Your task to perform on an android device: Is it going to rain tomorrow? Image 0: 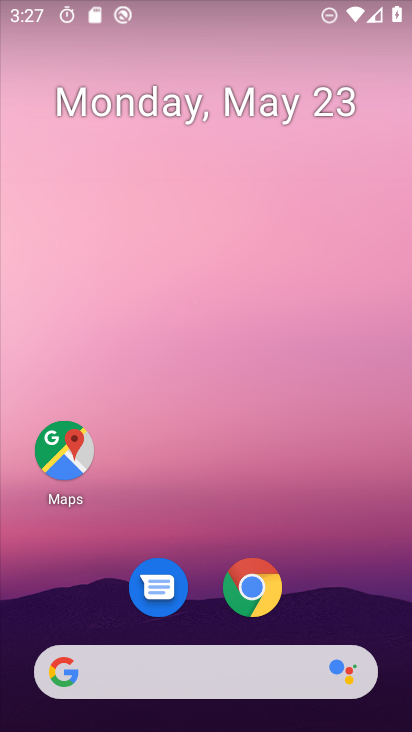
Step 0: click (172, 679)
Your task to perform on an android device: Is it going to rain tomorrow? Image 1: 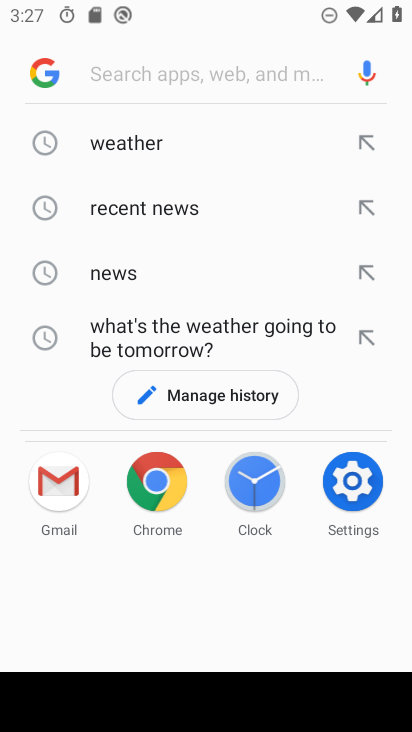
Step 1: click (141, 144)
Your task to perform on an android device: Is it going to rain tomorrow? Image 2: 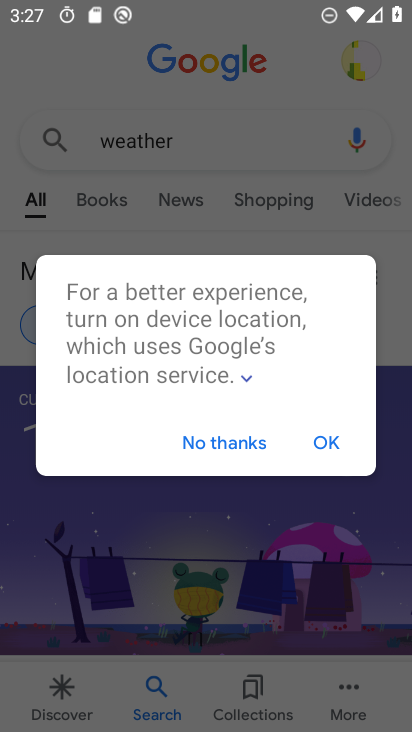
Step 2: click (323, 441)
Your task to perform on an android device: Is it going to rain tomorrow? Image 3: 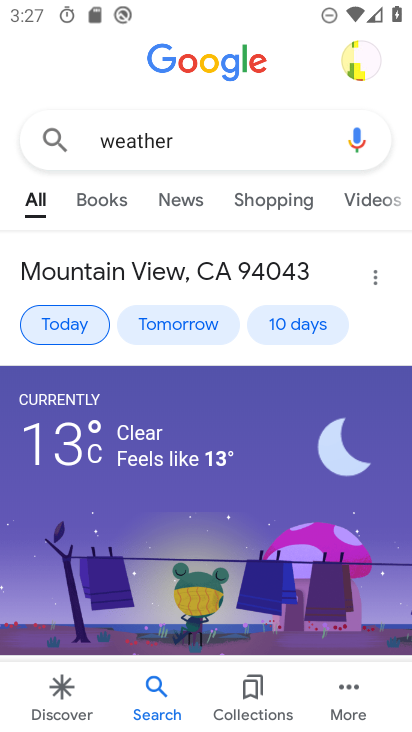
Step 3: task complete